Your task to perform on an android device: Open maps Image 0: 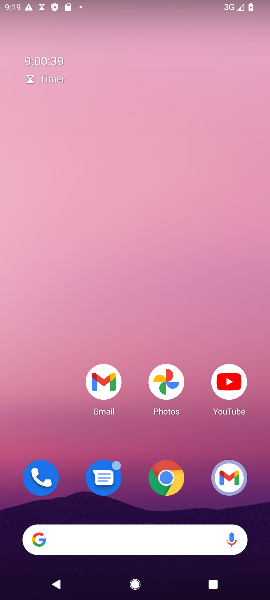
Step 0: drag from (188, 355) to (172, 124)
Your task to perform on an android device: Open maps Image 1: 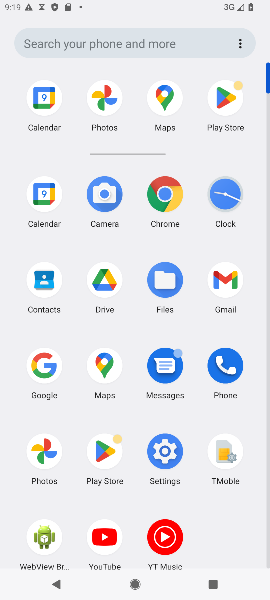
Step 1: click (165, 107)
Your task to perform on an android device: Open maps Image 2: 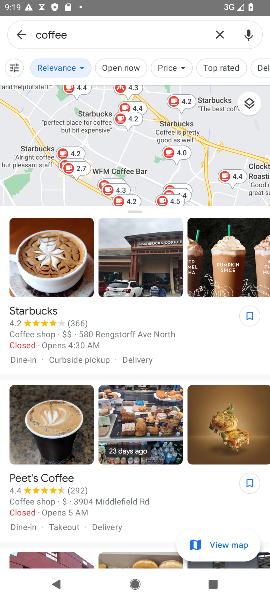
Step 2: task complete